Your task to perform on an android device: Search for Italian restaurants on Maps Image 0: 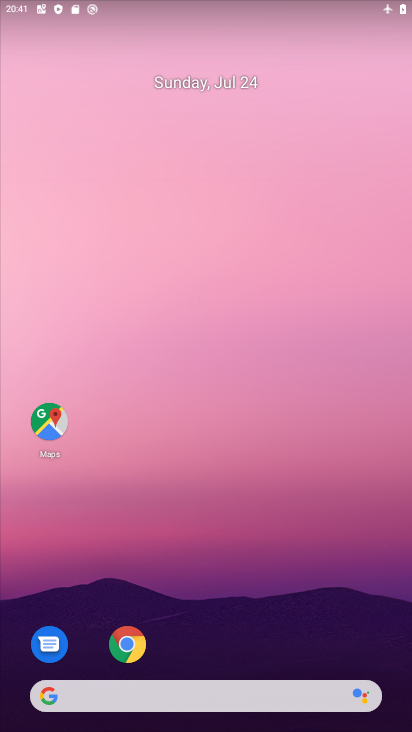
Step 0: click (49, 421)
Your task to perform on an android device: Search for Italian restaurants on Maps Image 1: 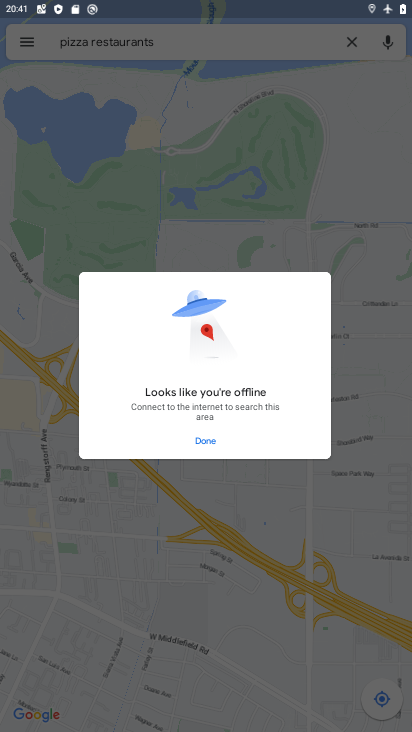
Step 1: click (209, 439)
Your task to perform on an android device: Search for Italian restaurants on Maps Image 2: 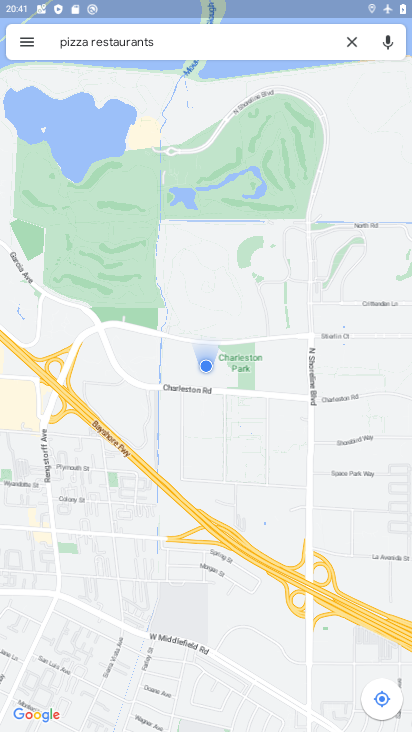
Step 2: click (352, 42)
Your task to perform on an android device: Search for Italian restaurants on Maps Image 3: 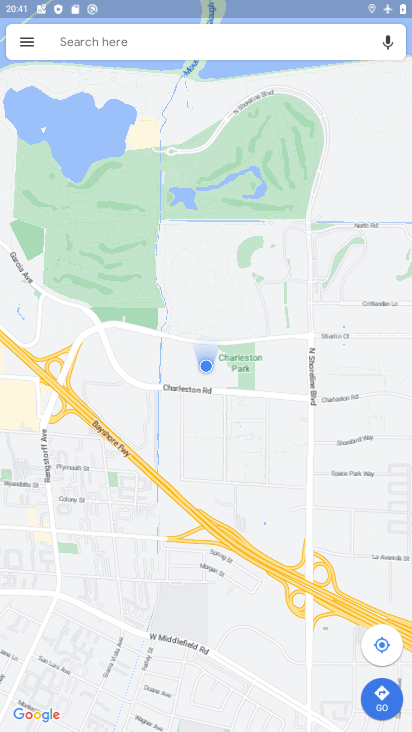
Step 3: click (95, 40)
Your task to perform on an android device: Search for Italian restaurants on Maps Image 4: 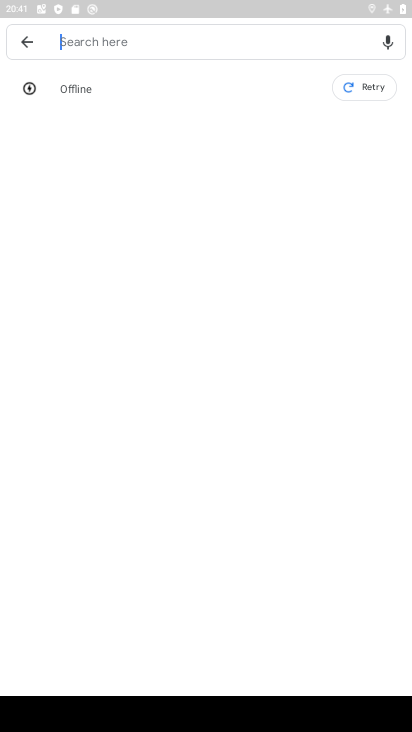
Step 4: type "italian restaurants"
Your task to perform on an android device: Search for Italian restaurants on Maps Image 5: 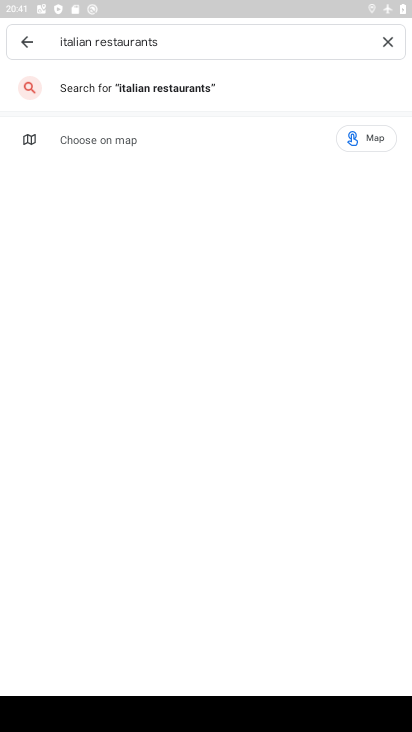
Step 5: click (155, 87)
Your task to perform on an android device: Search for Italian restaurants on Maps Image 6: 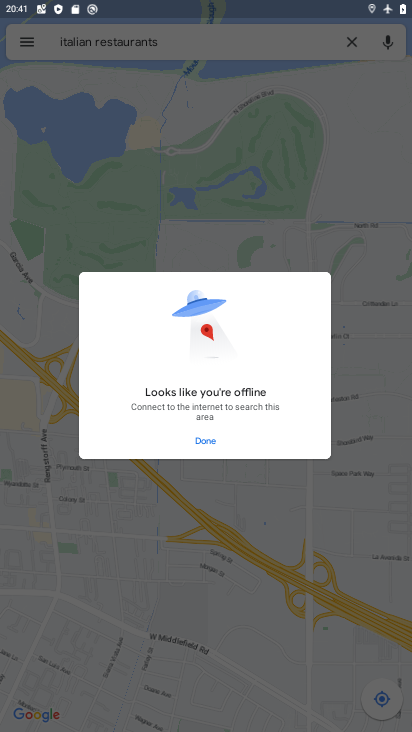
Step 6: click (202, 443)
Your task to perform on an android device: Search for Italian restaurants on Maps Image 7: 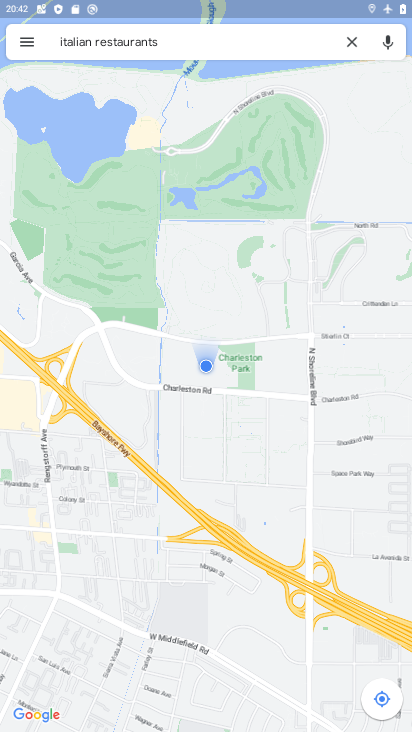
Step 7: task complete